Your task to perform on an android device: Search for flights from Zurich to Helsinki Image 0: 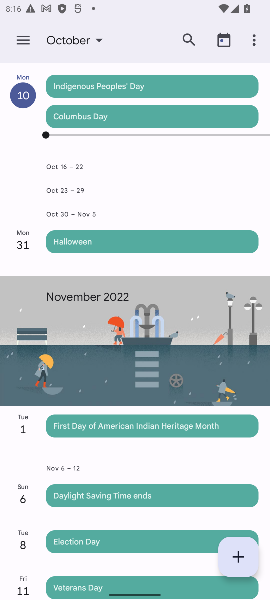
Step 0: press home button
Your task to perform on an android device: Search for flights from Zurich to Helsinki Image 1: 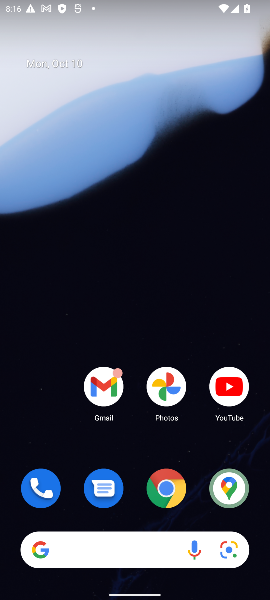
Step 1: drag from (199, 479) to (174, 172)
Your task to perform on an android device: Search for flights from Zurich to Helsinki Image 2: 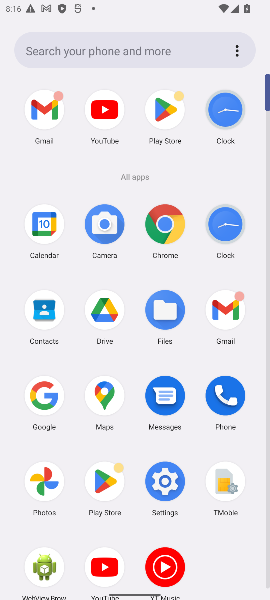
Step 2: click (165, 222)
Your task to perform on an android device: Search for flights from Zurich to Helsinki Image 3: 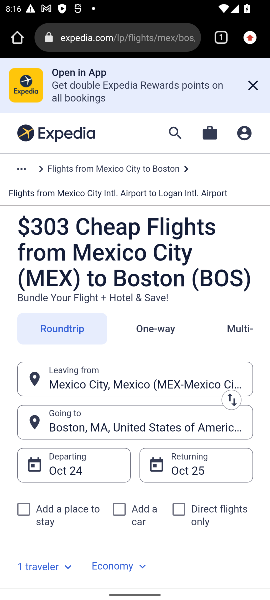
Step 3: click (114, 44)
Your task to perform on an android device: Search for flights from Zurich to Helsinki Image 4: 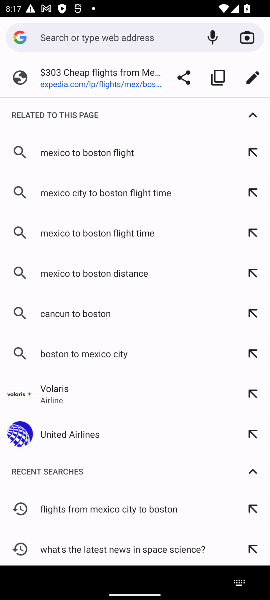
Step 4: type "flights from Zurich to Helsinki"
Your task to perform on an android device: Search for flights from Zurich to Helsinki Image 5: 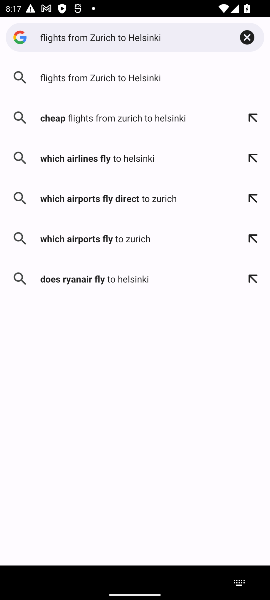
Step 5: press enter
Your task to perform on an android device: Search for flights from Zurich to Helsinki Image 6: 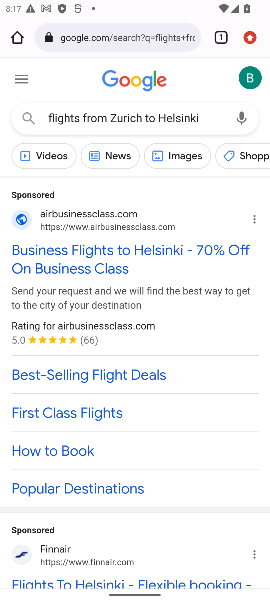
Step 6: task complete